Your task to perform on an android device: add a contact in the contacts app Image 0: 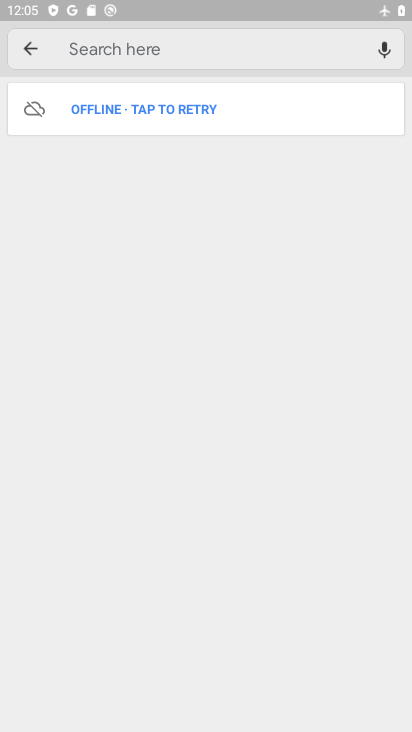
Step 0: press home button
Your task to perform on an android device: add a contact in the contacts app Image 1: 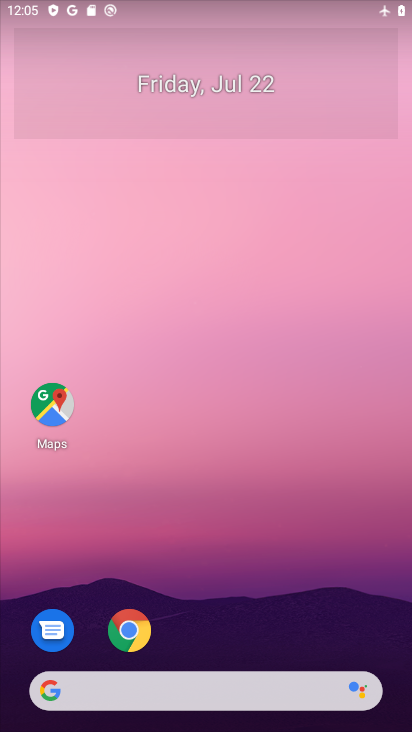
Step 1: drag from (214, 661) to (191, 100)
Your task to perform on an android device: add a contact in the contacts app Image 2: 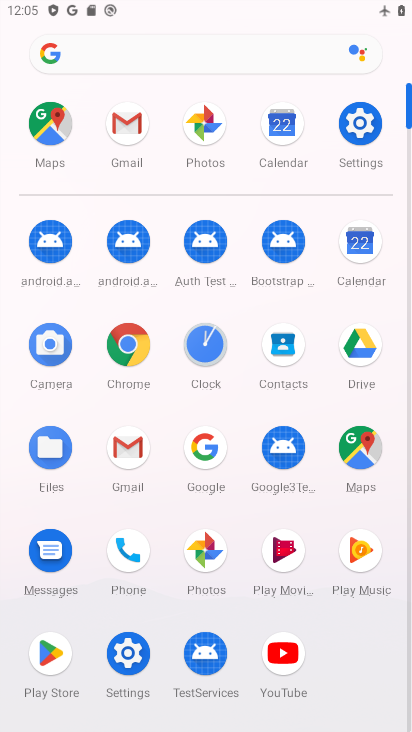
Step 2: click (121, 547)
Your task to perform on an android device: add a contact in the contacts app Image 3: 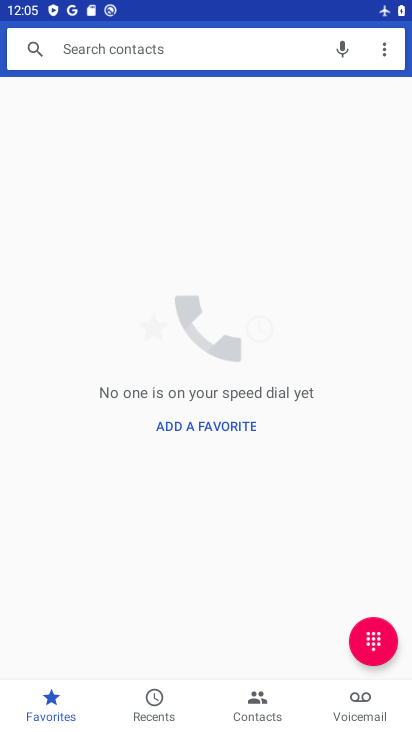
Step 3: click (249, 701)
Your task to perform on an android device: add a contact in the contacts app Image 4: 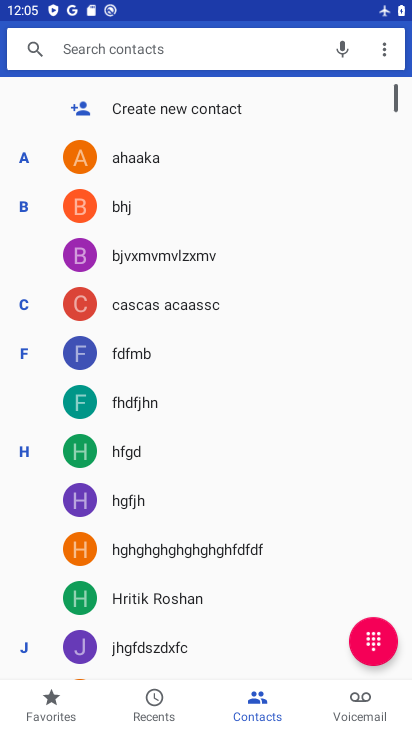
Step 4: click (95, 110)
Your task to perform on an android device: add a contact in the contacts app Image 5: 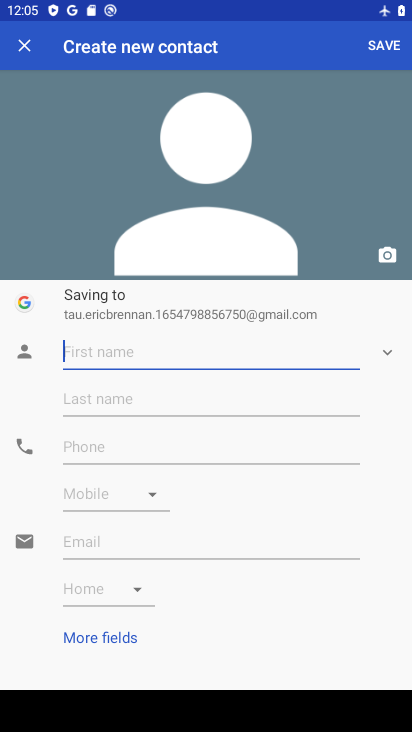
Step 5: type "add a contact in the contacts app  Drive b"
Your task to perform on an android device: add a contact in the contacts app Image 6: 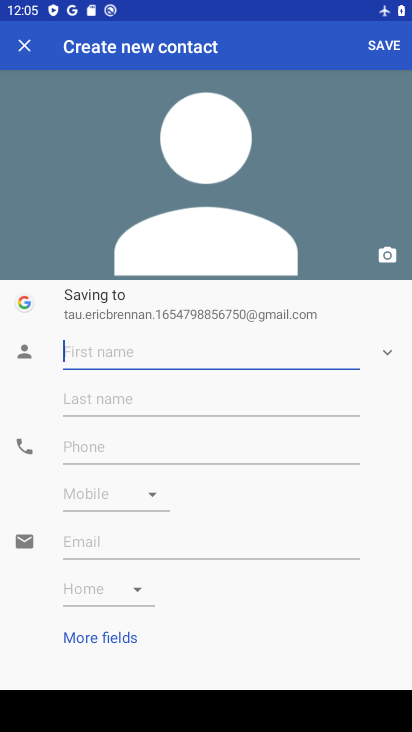
Step 6: click (384, 45)
Your task to perform on an android device: add a contact in the contacts app Image 7: 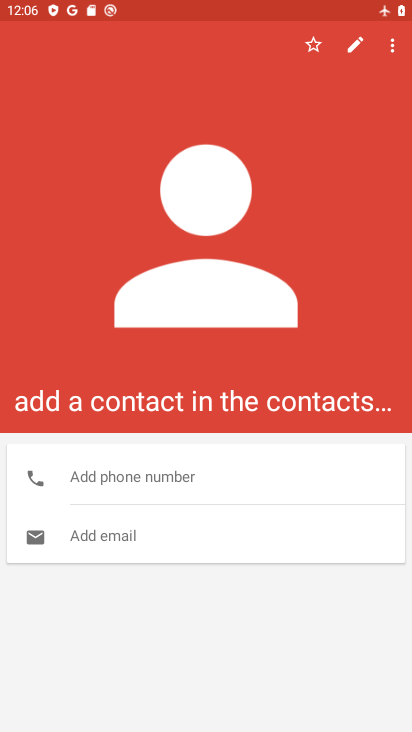
Step 7: task complete